Your task to perform on an android device: See recent photos Image 0: 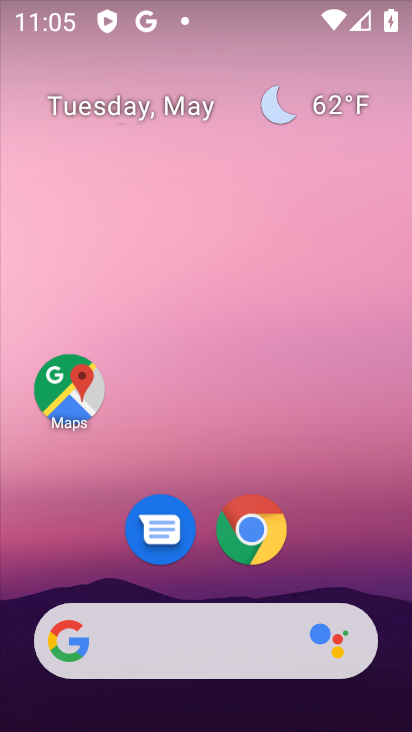
Step 0: click (151, 705)
Your task to perform on an android device: See recent photos Image 1: 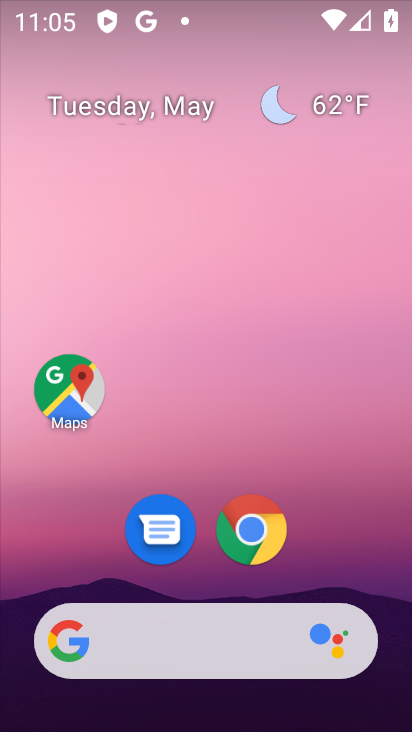
Step 1: drag from (149, 729) to (205, 150)
Your task to perform on an android device: See recent photos Image 2: 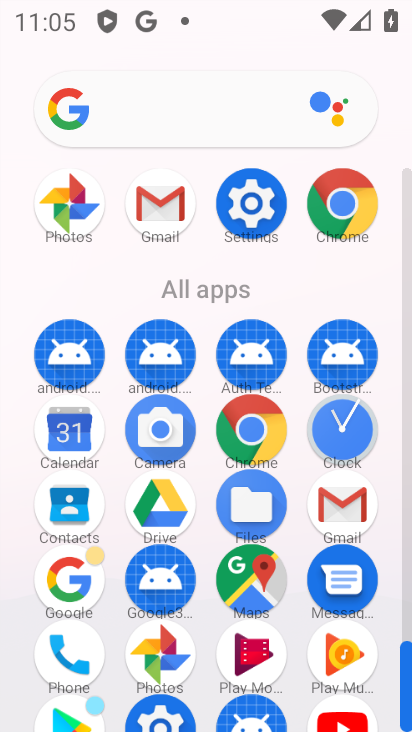
Step 2: click (81, 225)
Your task to perform on an android device: See recent photos Image 3: 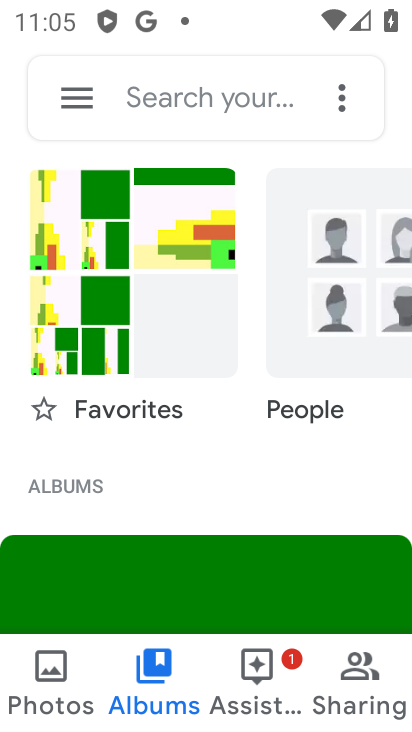
Step 3: click (181, 602)
Your task to perform on an android device: See recent photos Image 4: 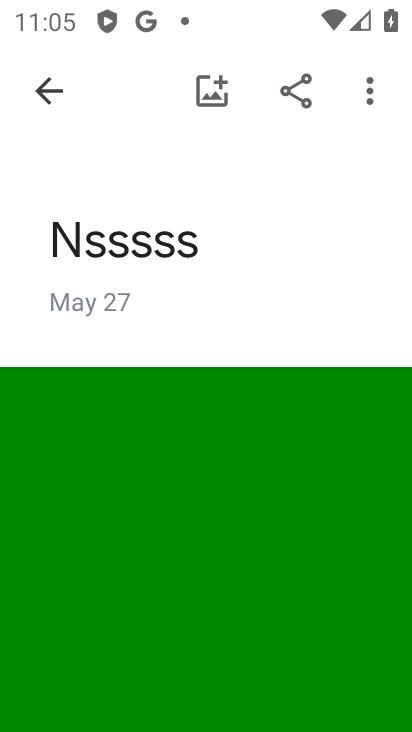
Step 4: task complete